Your task to perform on an android device: Go to Yahoo.com Image 0: 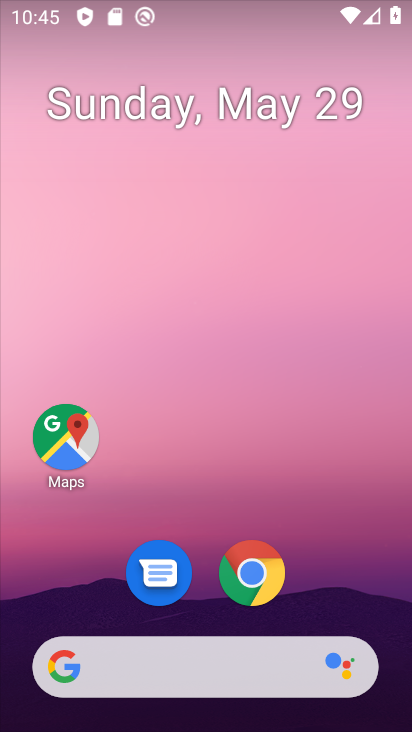
Step 0: click (174, 674)
Your task to perform on an android device: Go to Yahoo.com Image 1: 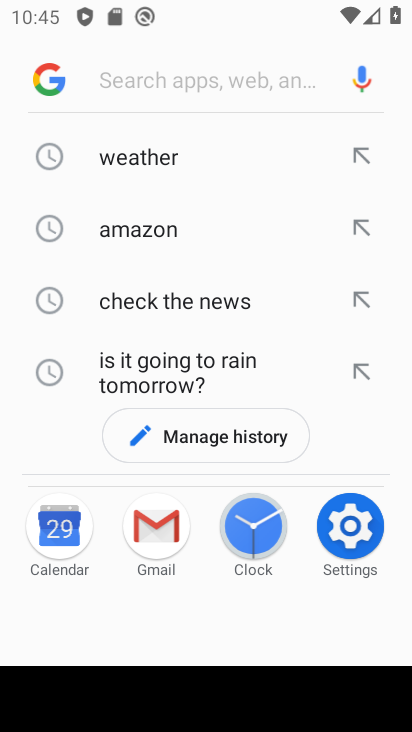
Step 1: type "Yahoo.com"
Your task to perform on an android device: Go to Yahoo.com Image 2: 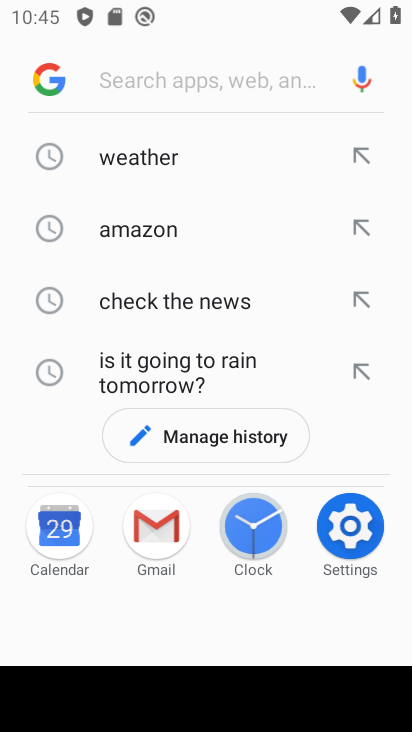
Step 2: click (172, 82)
Your task to perform on an android device: Go to Yahoo.com Image 3: 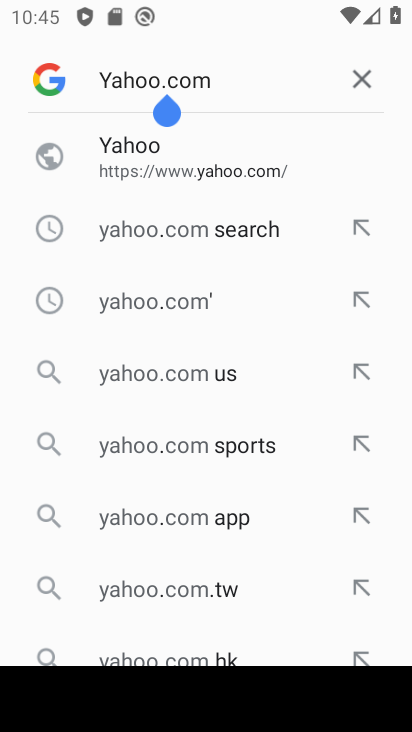
Step 3: click (156, 313)
Your task to perform on an android device: Go to Yahoo.com Image 4: 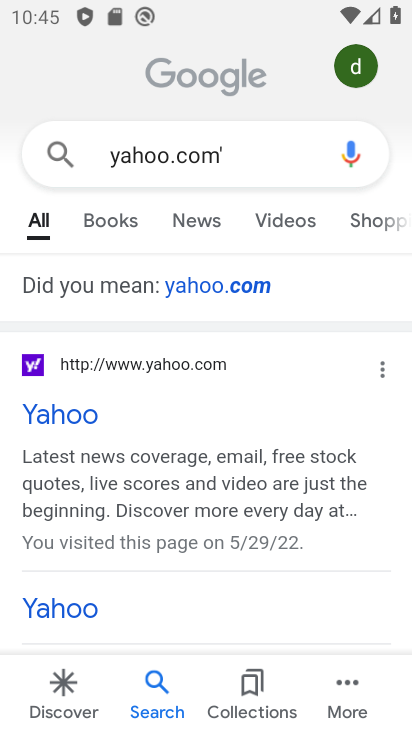
Step 4: click (64, 364)
Your task to perform on an android device: Go to Yahoo.com Image 5: 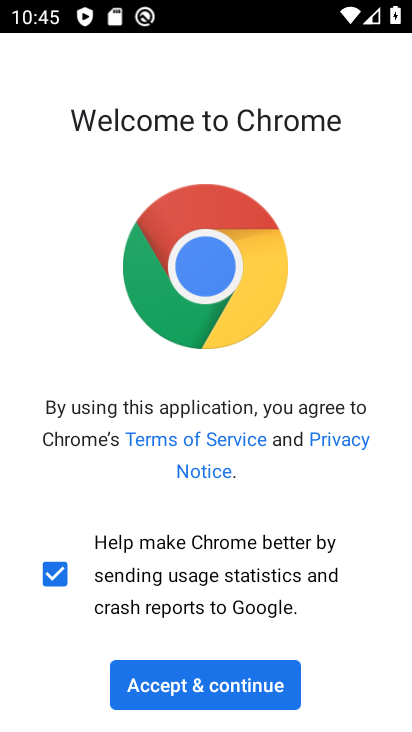
Step 5: click (261, 681)
Your task to perform on an android device: Go to Yahoo.com Image 6: 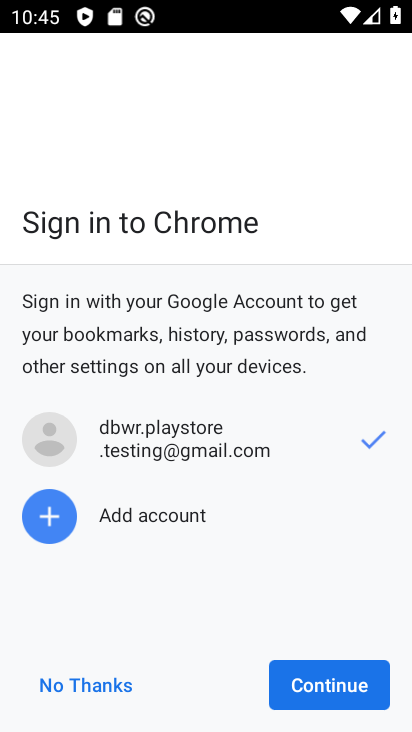
Step 6: click (351, 695)
Your task to perform on an android device: Go to Yahoo.com Image 7: 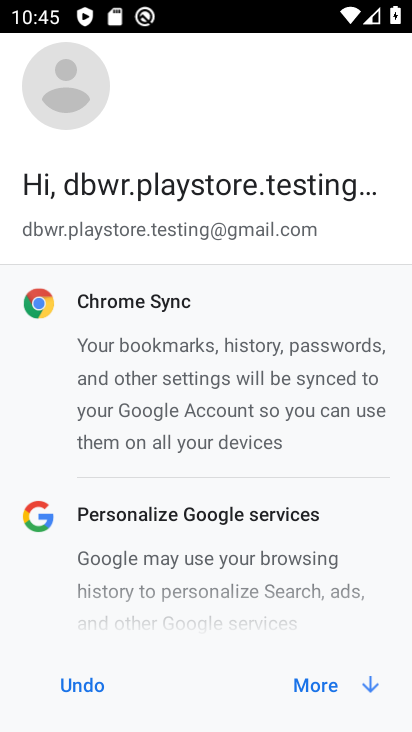
Step 7: click (354, 691)
Your task to perform on an android device: Go to Yahoo.com Image 8: 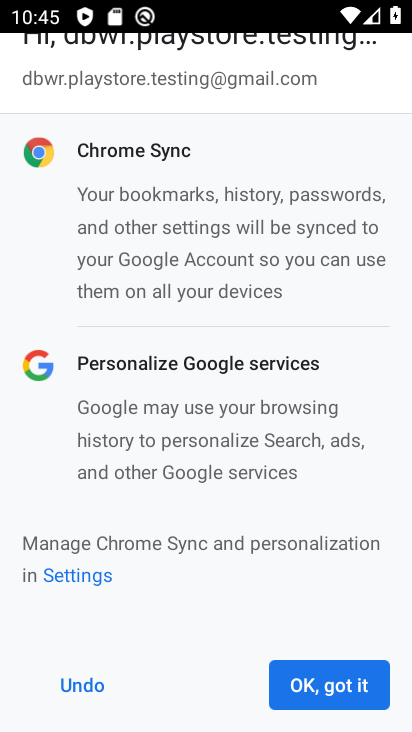
Step 8: click (371, 691)
Your task to perform on an android device: Go to Yahoo.com Image 9: 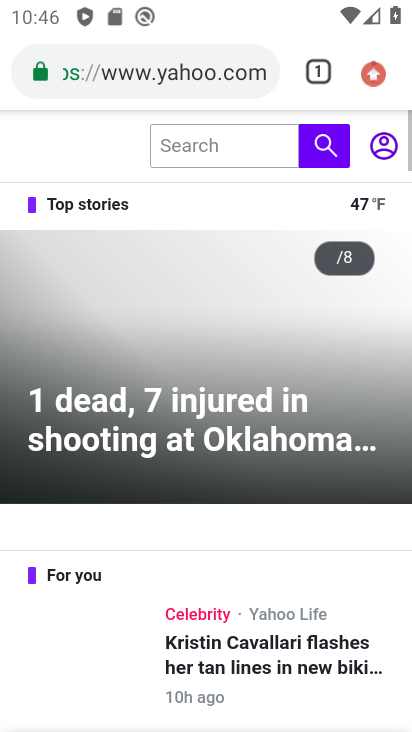
Step 9: task complete